Your task to perform on an android device: read, delete, or share a saved page in the chrome app Image 0: 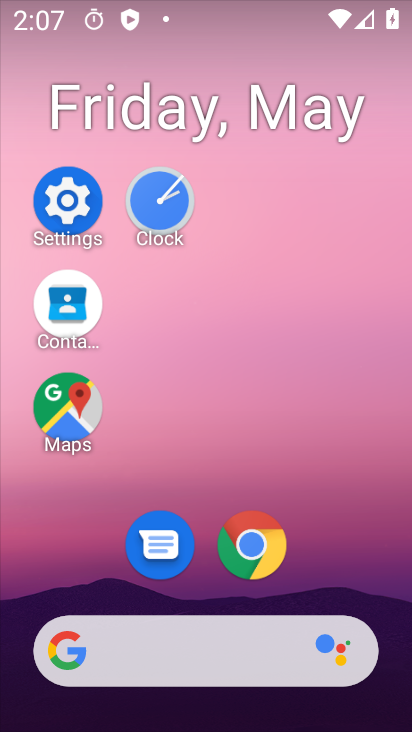
Step 0: click (267, 536)
Your task to perform on an android device: read, delete, or share a saved page in the chrome app Image 1: 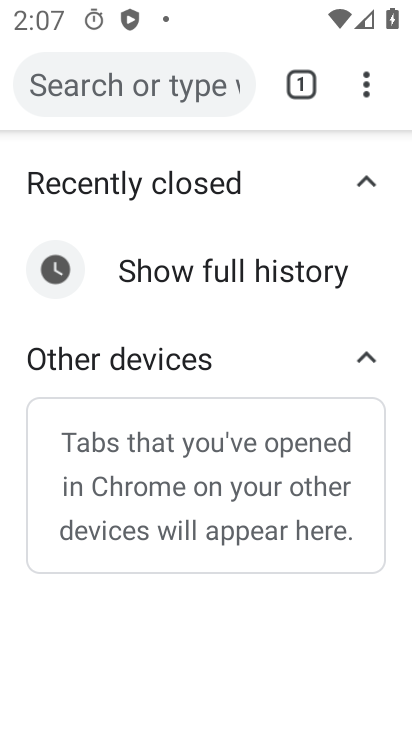
Step 1: click (372, 80)
Your task to perform on an android device: read, delete, or share a saved page in the chrome app Image 2: 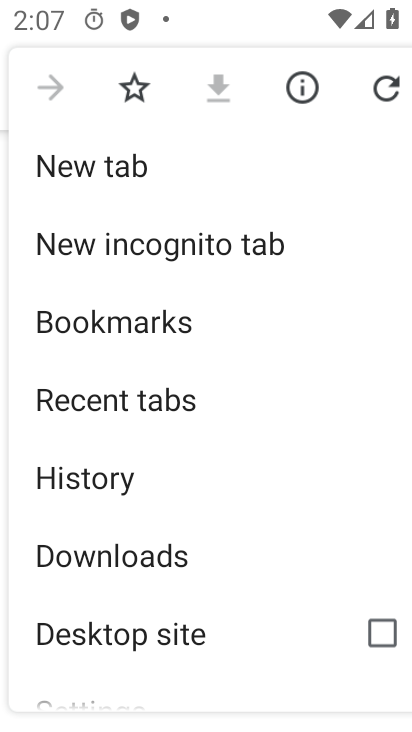
Step 2: click (169, 558)
Your task to perform on an android device: read, delete, or share a saved page in the chrome app Image 3: 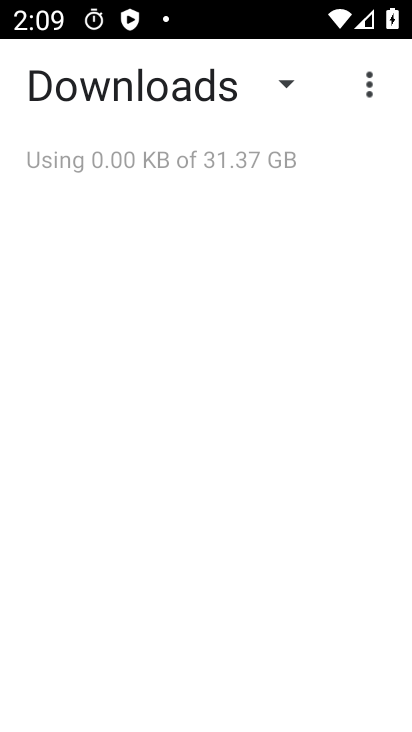
Step 3: task complete